Your task to perform on an android device: allow notifications from all sites in the chrome app Image 0: 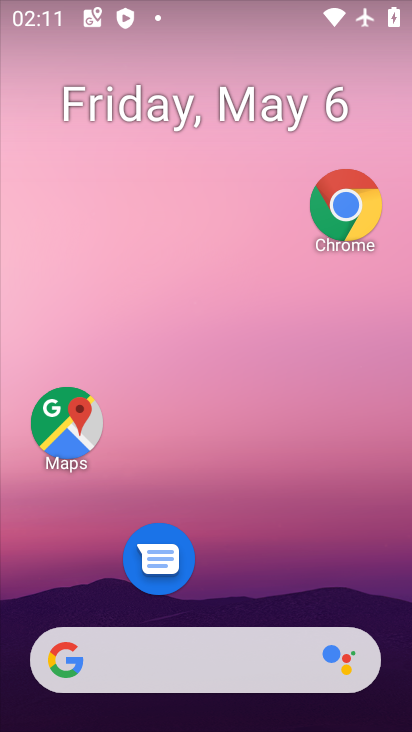
Step 0: drag from (149, 671) to (345, 1)
Your task to perform on an android device: allow notifications from all sites in the chrome app Image 1: 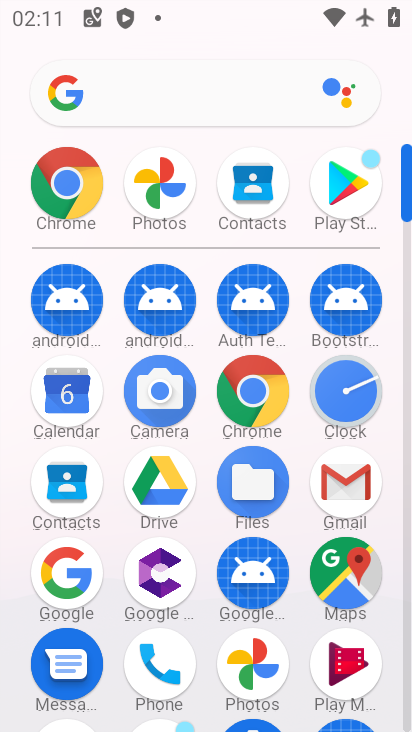
Step 1: click (73, 185)
Your task to perform on an android device: allow notifications from all sites in the chrome app Image 2: 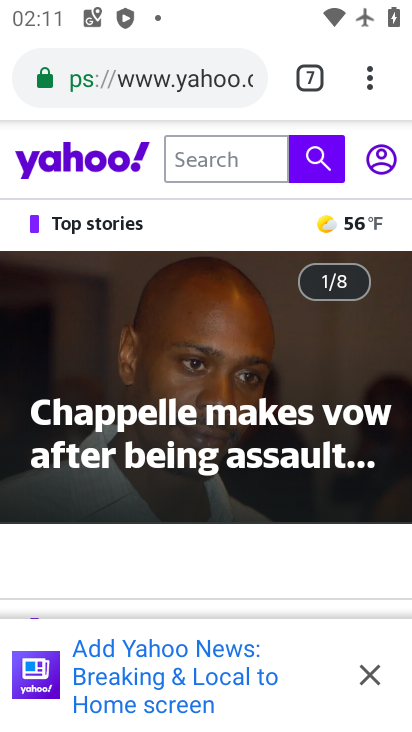
Step 2: drag from (371, 82) to (138, 627)
Your task to perform on an android device: allow notifications from all sites in the chrome app Image 3: 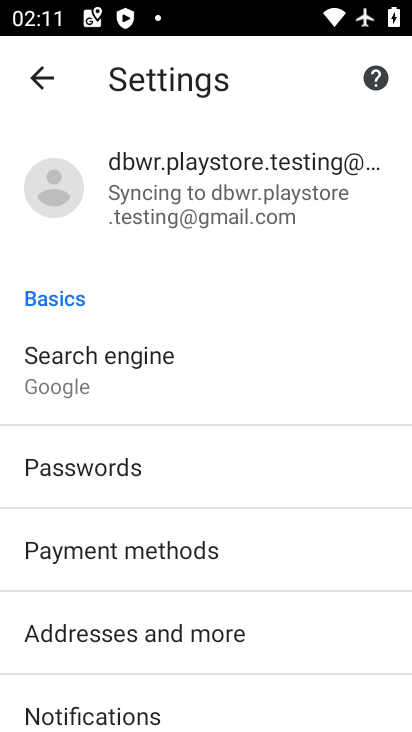
Step 3: drag from (155, 699) to (376, 151)
Your task to perform on an android device: allow notifications from all sites in the chrome app Image 4: 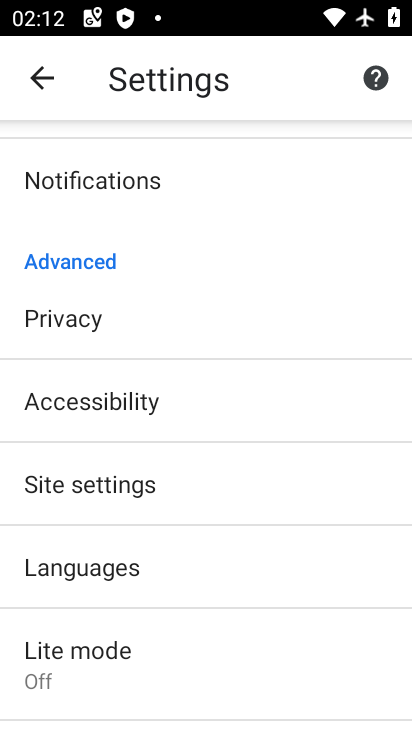
Step 4: click (146, 494)
Your task to perform on an android device: allow notifications from all sites in the chrome app Image 5: 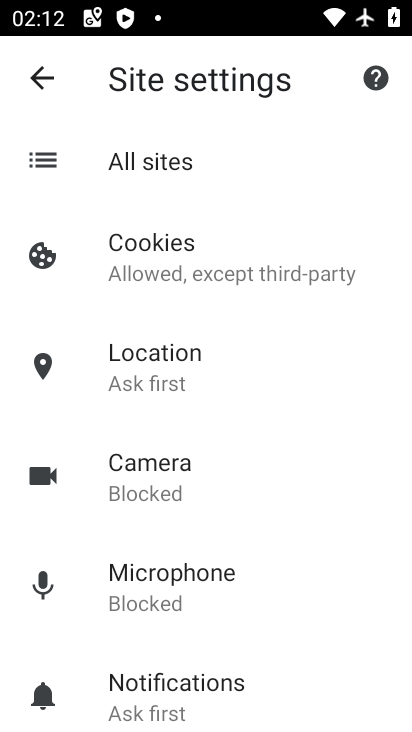
Step 5: drag from (176, 643) to (295, 411)
Your task to perform on an android device: allow notifications from all sites in the chrome app Image 6: 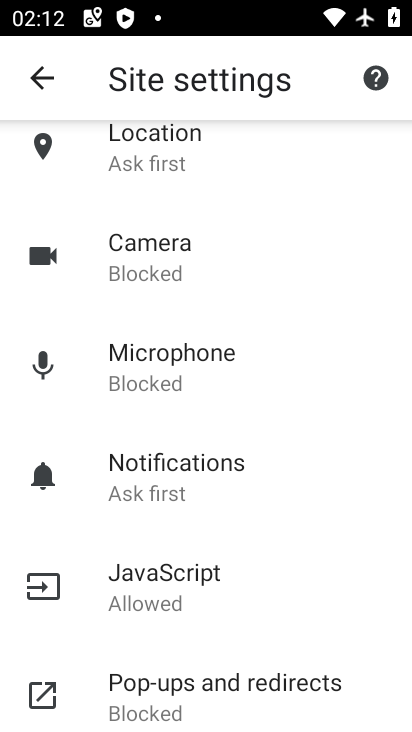
Step 6: click (182, 476)
Your task to perform on an android device: allow notifications from all sites in the chrome app Image 7: 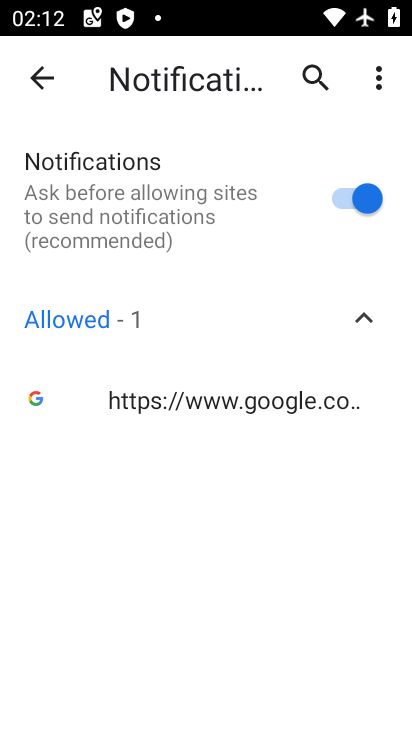
Step 7: task complete